Your task to perform on an android device: Turn on the flashlight Image 0: 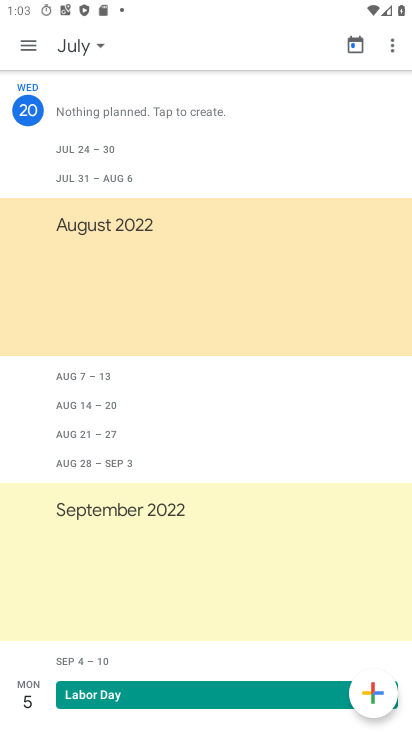
Step 0: press home button
Your task to perform on an android device: Turn on the flashlight Image 1: 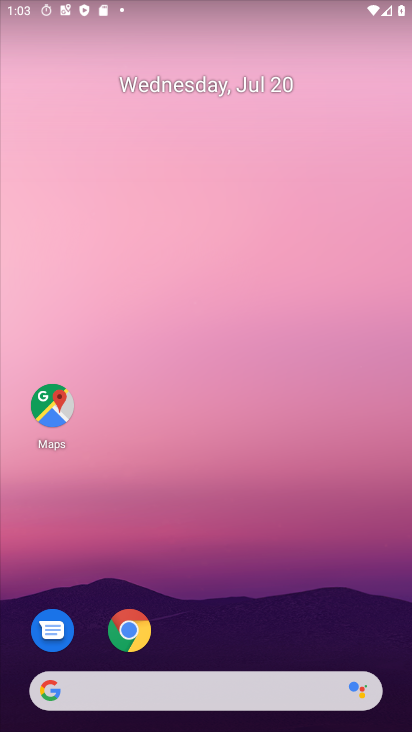
Step 1: drag from (112, 539) to (239, 40)
Your task to perform on an android device: Turn on the flashlight Image 2: 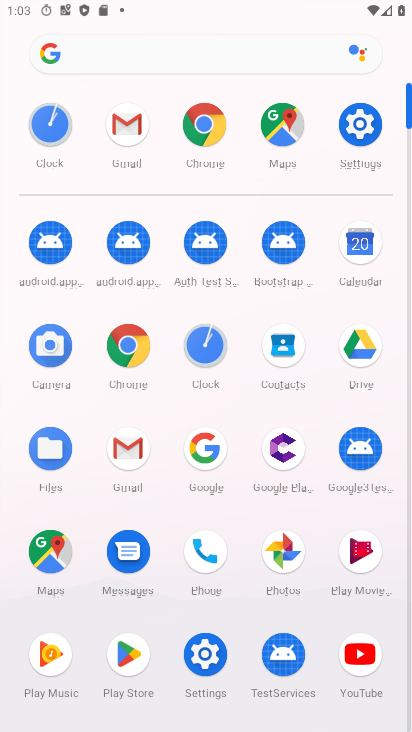
Step 2: click (368, 116)
Your task to perform on an android device: Turn on the flashlight Image 3: 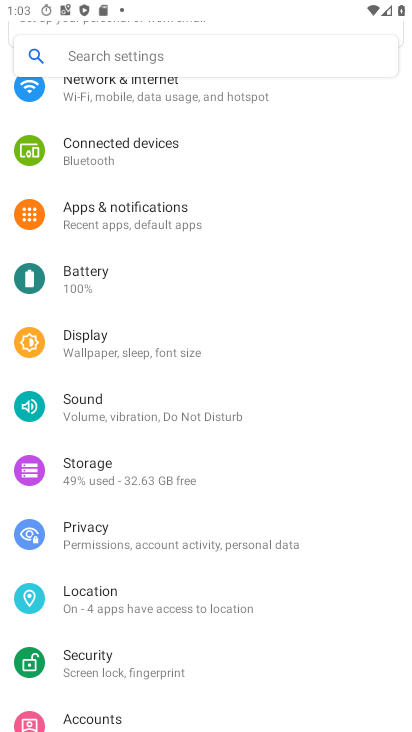
Step 3: task complete